Your task to perform on an android device: find which apps use the phone's location Image 0: 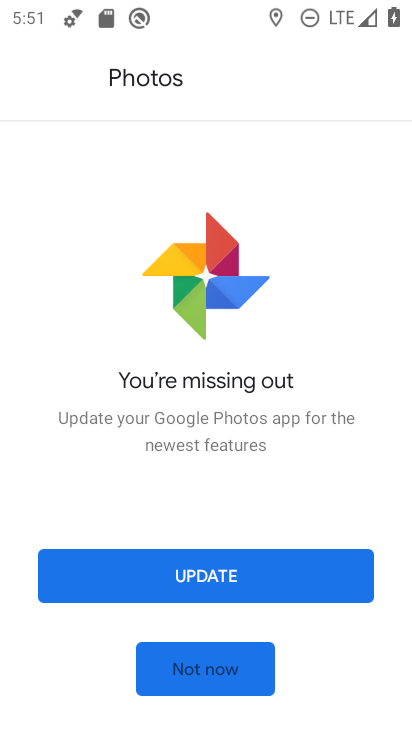
Step 0: press back button
Your task to perform on an android device: find which apps use the phone's location Image 1: 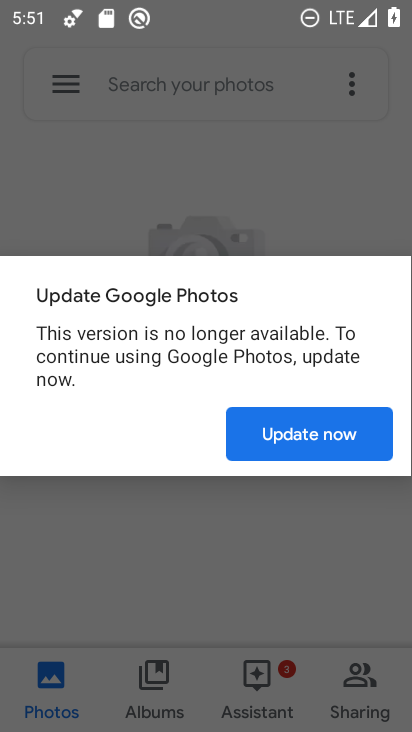
Step 1: press home button
Your task to perform on an android device: find which apps use the phone's location Image 2: 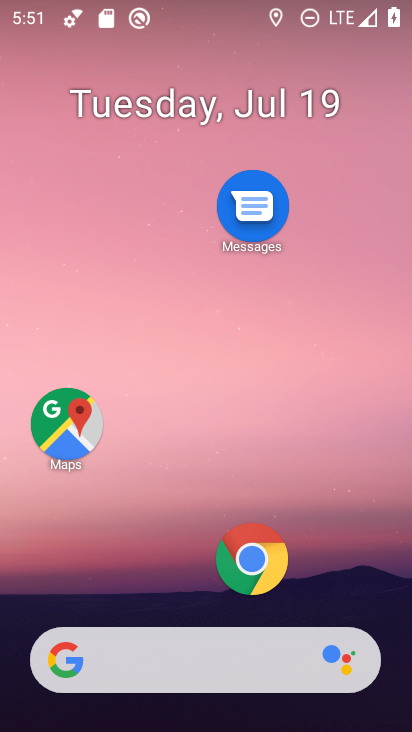
Step 2: drag from (135, 624) to (205, 0)
Your task to perform on an android device: find which apps use the phone's location Image 3: 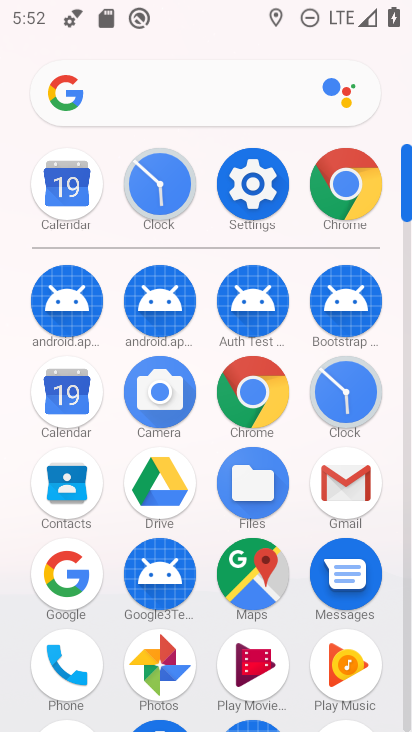
Step 3: click (258, 174)
Your task to perform on an android device: find which apps use the phone's location Image 4: 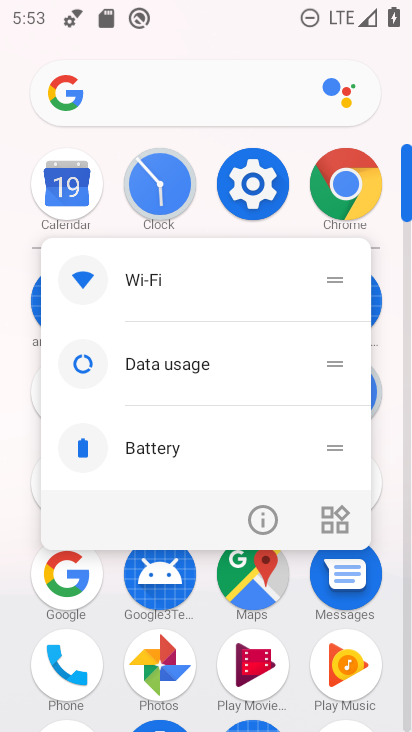
Step 4: click (254, 163)
Your task to perform on an android device: find which apps use the phone's location Image 5: 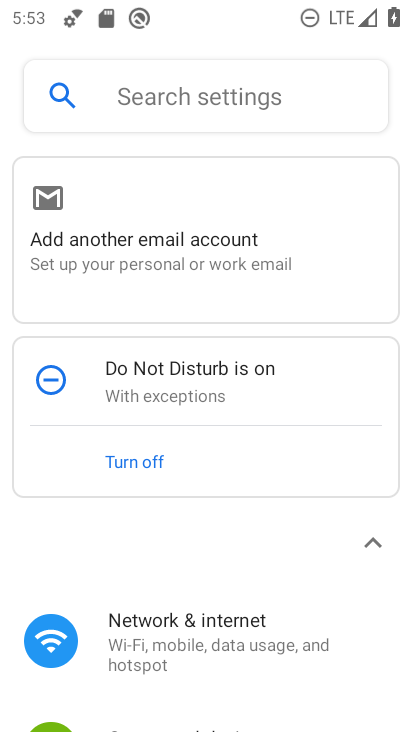
Step 5: drag from (153, 635) to (301, 27)
Your task to perform on an android device: find which apps use the phone's location Image 6: 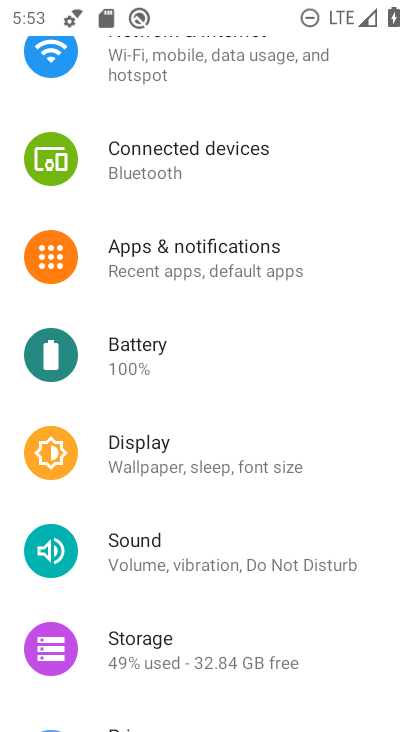
Step 6: drag from (170, 642) to (292, 113)
Your task to perform on an android device: find which apps use the phone's location Image 7: 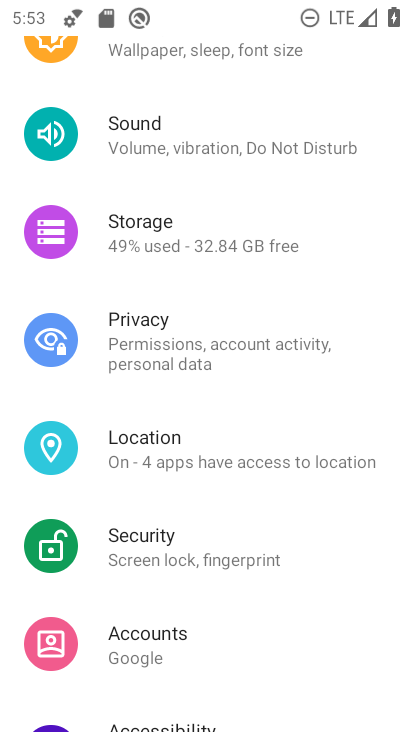
Step 7: click (163, 458)
Your task to perform on an android device: find which apps use the phone's location Image 8: 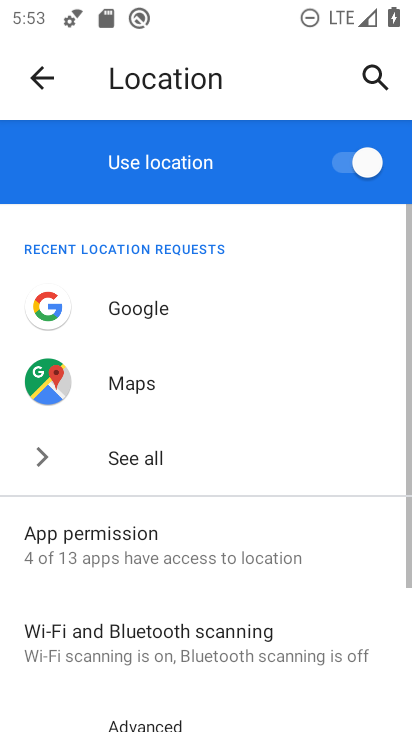
Step 8: click (107, 547)
Your task to perform on an android device: find which apps use the phone's location Image 9: 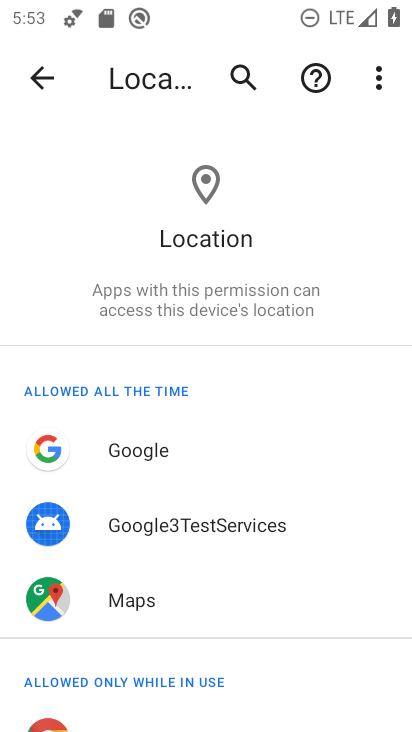
Step 9: task complete